Your task to perform on an android device: change the upload size in google photos Image 0: 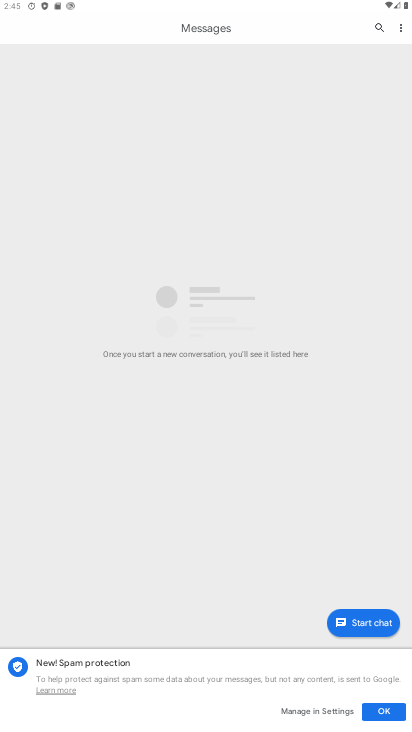
Step 0: press home button
Your task to perform on an android device: change the upload size in google photos Image 1: 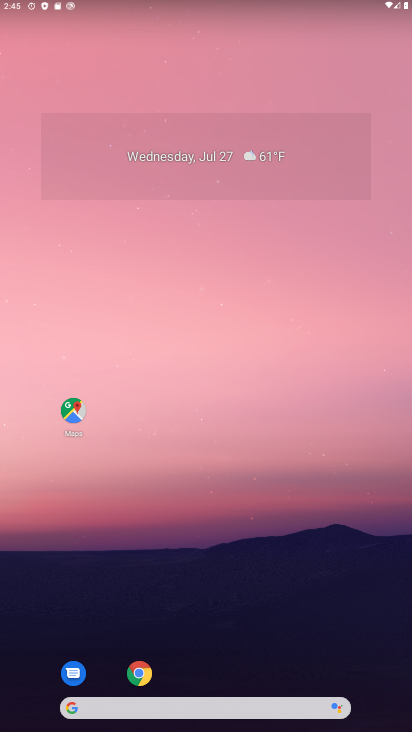
Step 1: drag from (127, 421) to (193, 19)
Your task to perform on an android device: change the upload size in google photos Image 2: 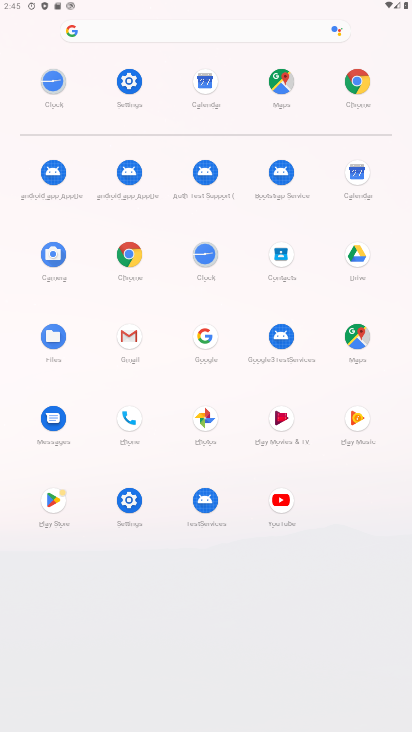
Step 2: click (201, 426)
Your task to perform on an android device: change the upload size in google photos Image 3: 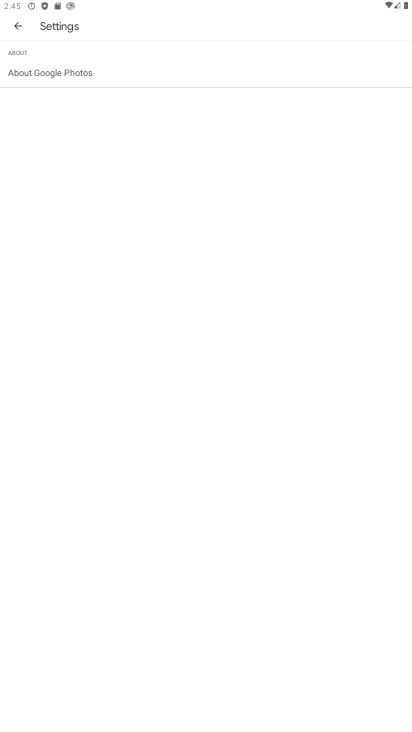
Step 3: click (17, 23)
Your task to perform on an android device: change the upload size in google photos Image 4: 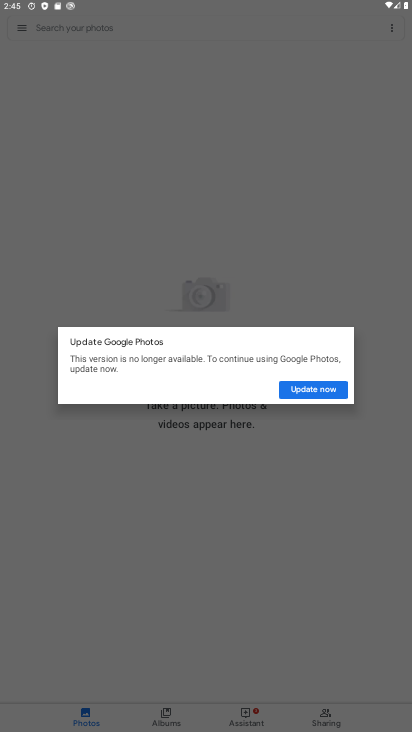
Step 4: press home button
Your task to perform on an android device: change the upload size in google photos Image 5: 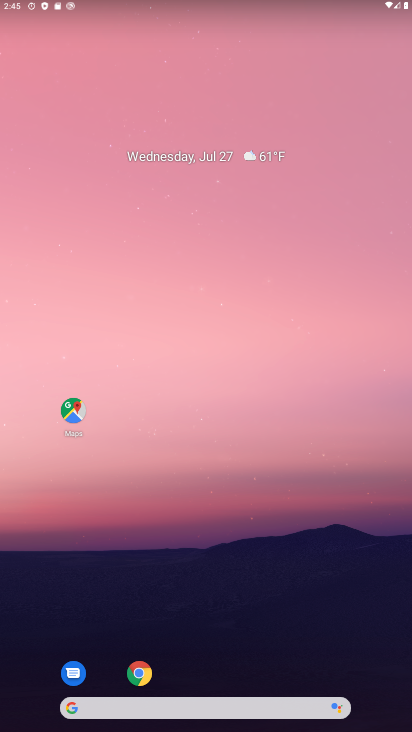
Step 5: drag from (16, 714) to (259, 54)
Your task to perform on an android device: change the upload size in google photos Image 6: 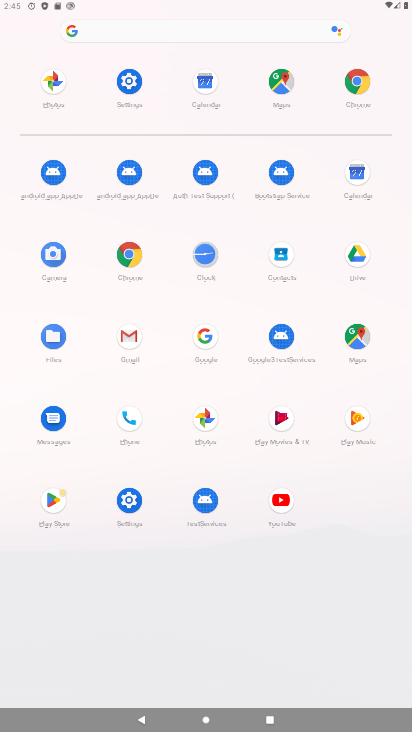
Step 6: click (193, 414)
Your task to perform on an android device: change the upload size in google photos Image 7: 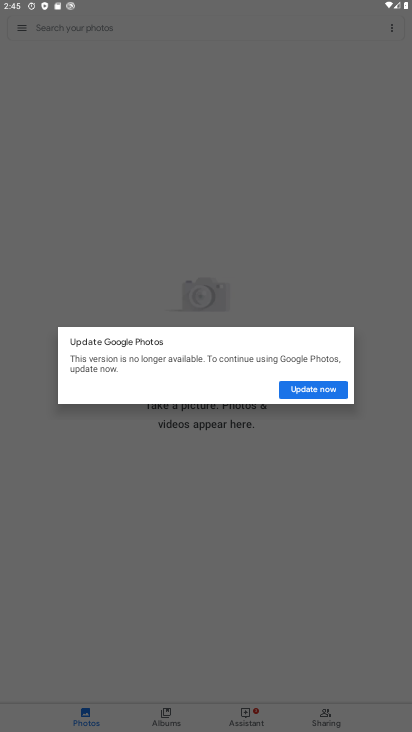
Step 7: click (311, 378)
Your task to perform on an android device: change the upload size in google photos Image 8: 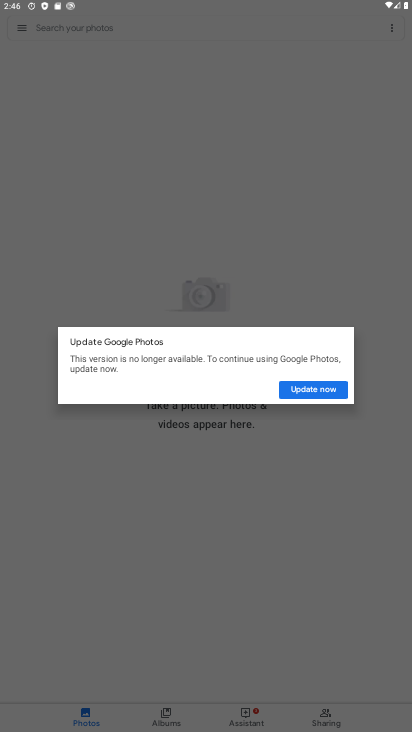
Step 8: click (307, 389)
Your task to perform on an android device: change the upload size in google photos Image 9: 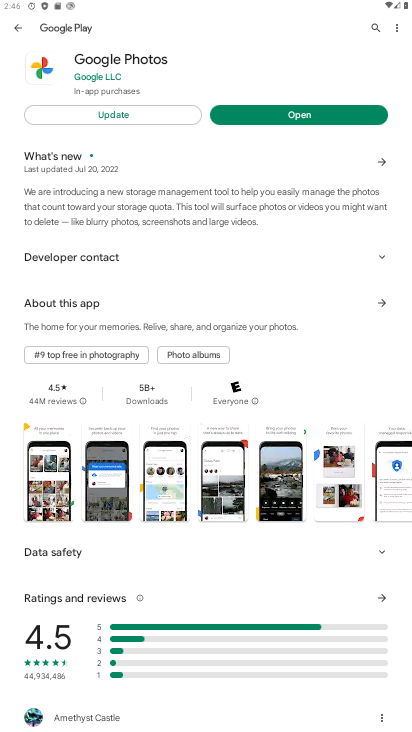
Step 9: click (297, 119)
Your task to perform on an android device: change the upload size in google photos Image 10: 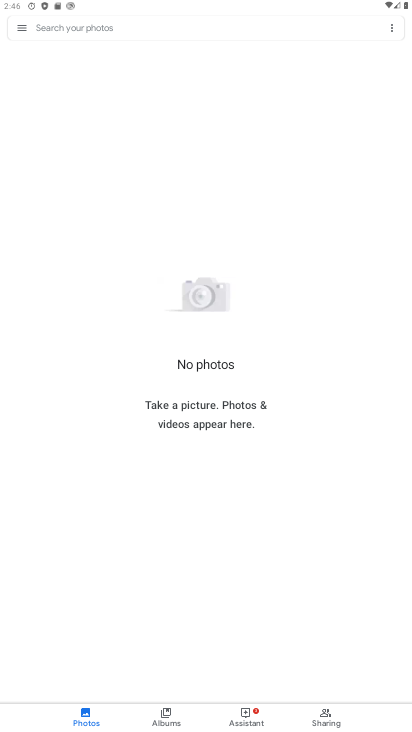
Step 10: click (12, 29)
Your task to perform on an android device: change the upload size in google photos Image 11: 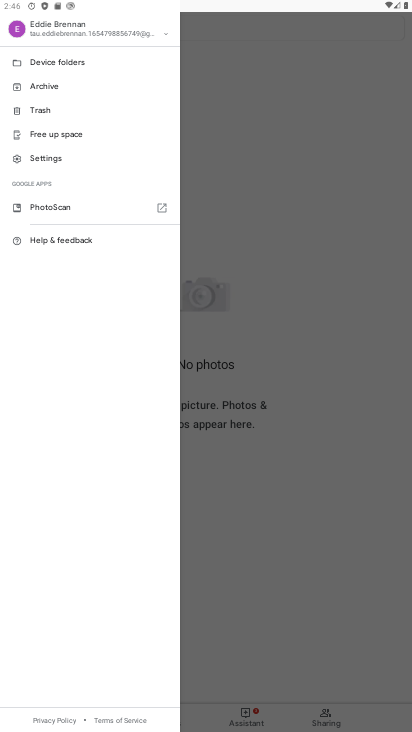
Step 11: click (72, 153)
Your task to perform on an android device: change the upload size in google photos Image 12: 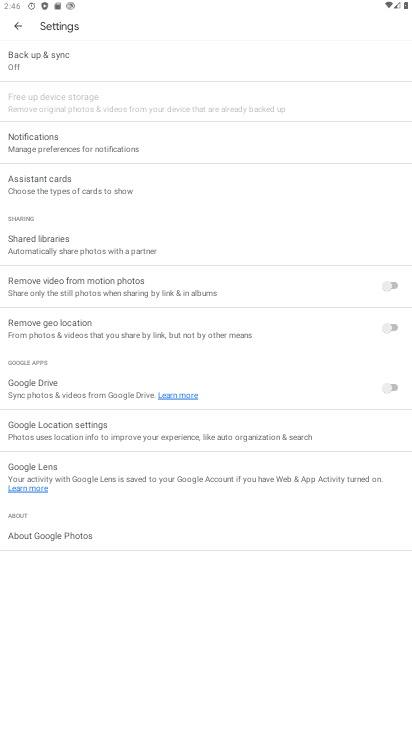
Step 12: click (56, 150)
Your task to perform on an android device: change the upload size in google photos Image 13: 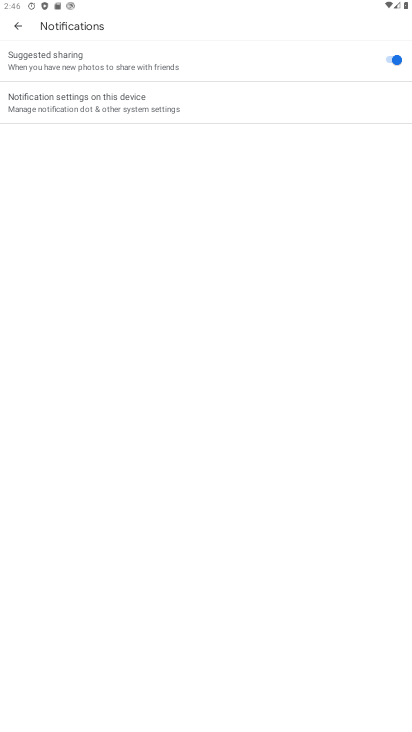
Step 13: click (64, 107)
Your task to perform on an android device: change the upload size in google photos Image 14: 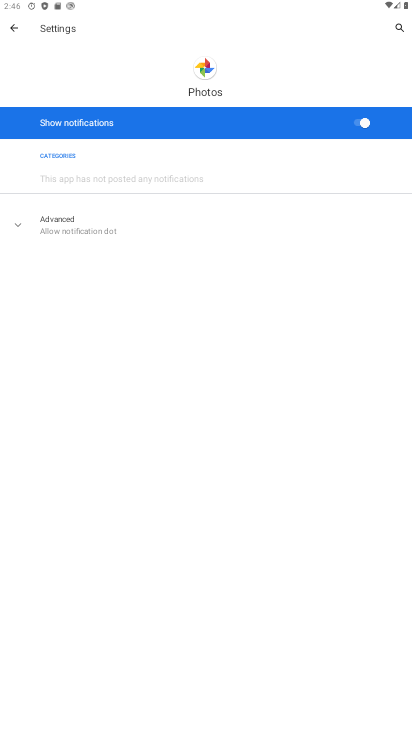
Step 14: task complete